Your task to perform on an android device: Open Google Image 0: 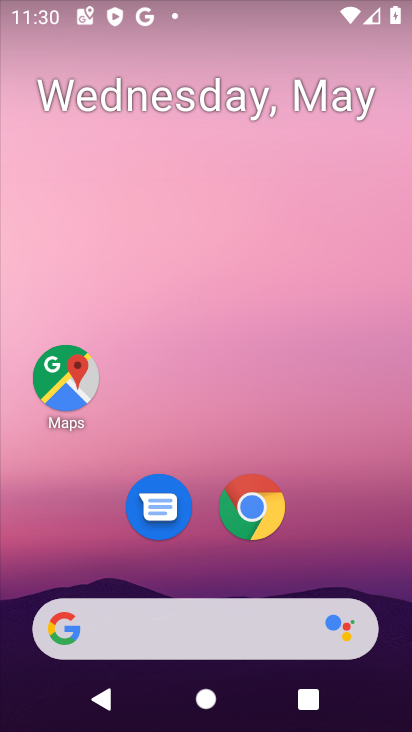
Step 0: press home button
Your task to perform on an android device: Open Google Image 1: 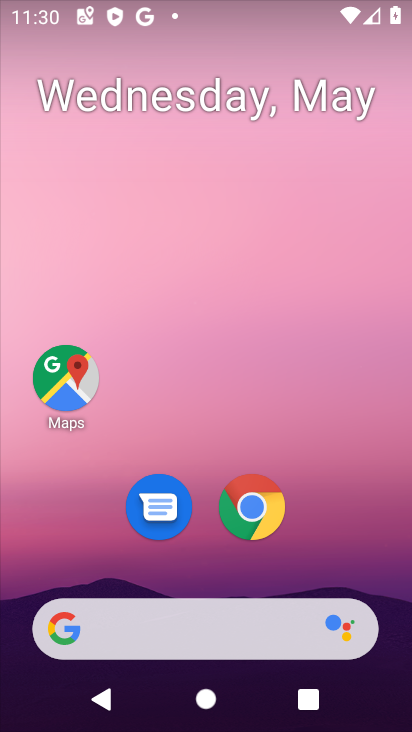
Step 1: drag from (201, 396) to (336, 72)
Your task to perform on an android device: Open Google Image 2: 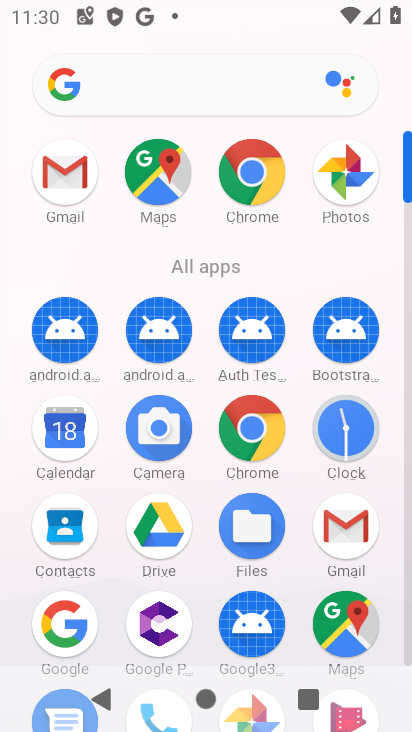
Step 2: click (45, 615)
Your task to perform on an android device: Open Google Image 3: 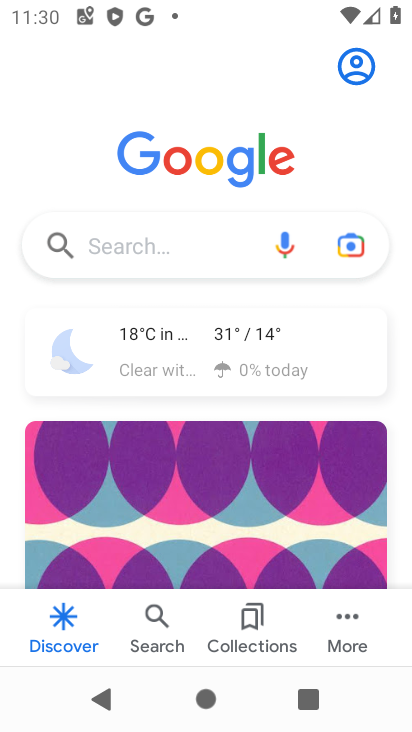
Step 3: task complete